Your task to perform on an android device: turn off javascript in the chrome app Image 0: 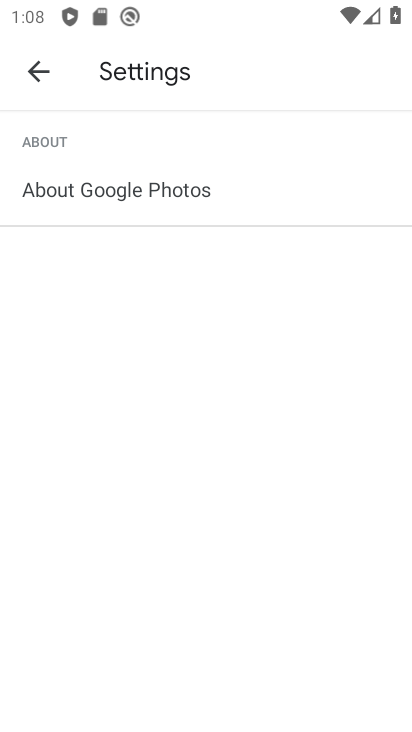
Step 0: press home button
Your task to perform on an android device: turn off javascript in the chrome app Image 1: 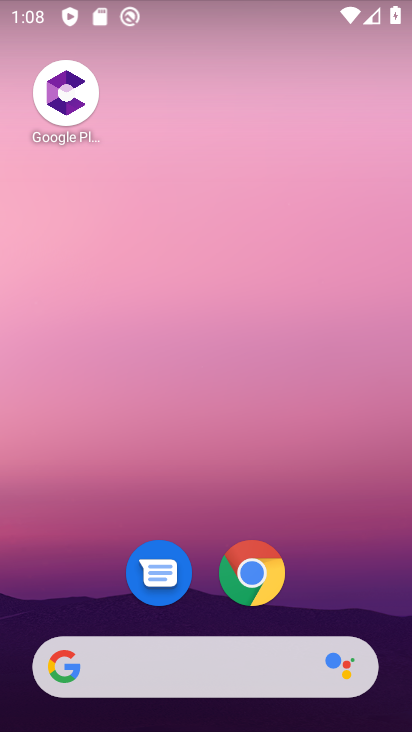
Step 1: click (240, 564)
Your task to perform on an android device: turn off javascript in the chrome app Image 2: 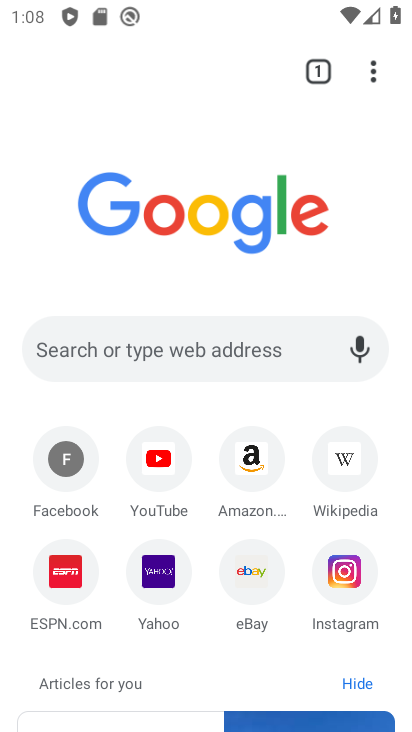
Step 2: click (370, 74)
Your task to perform on an android device: turn off javascript in the chrome app Image 3: 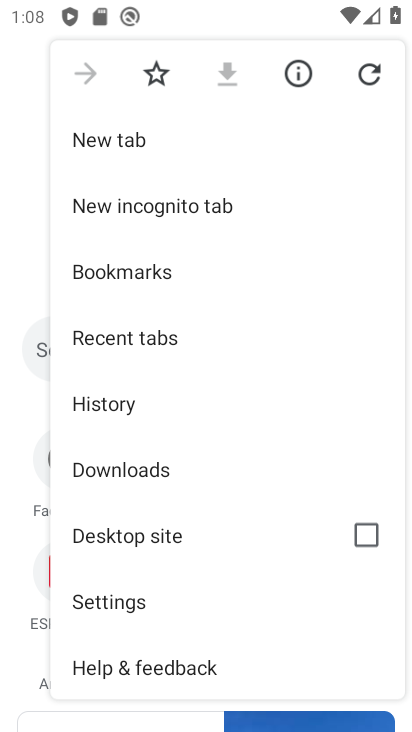
Step 3: click (180, 586)
Your task to perform on an android device: turn off javascript in the chrome app Image 4: 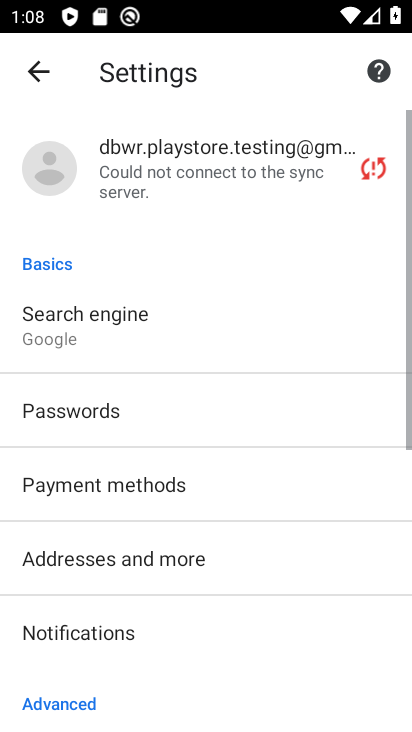
Step 4: drag from (233, 576) to (235, 334)
Your task to perform on an android device: turn off javascript in the chrome app Image 5: 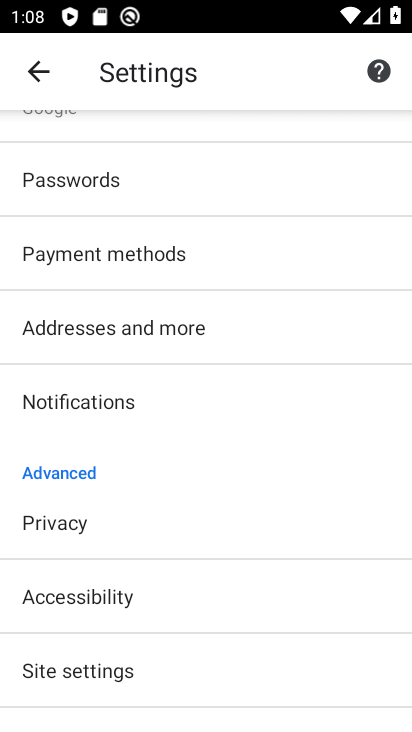
Step 5: click (129, 662)
Your task to perform on an android device: turn off javascript in the chrome app Image 6: 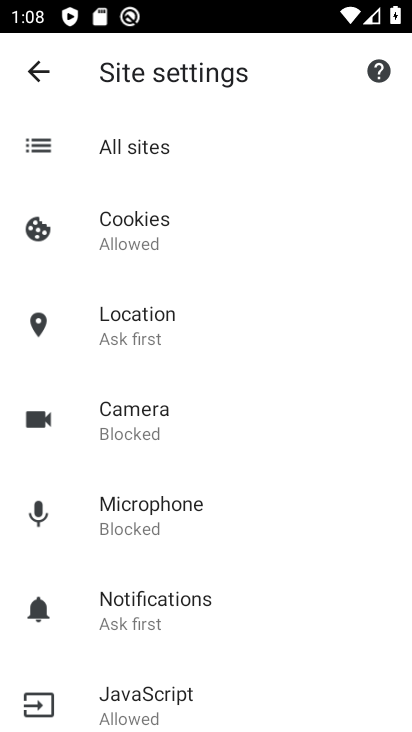
Step 6: click (183, 669)
Your task to perform on an android device: turn off javascript in the chrome app Image 7: 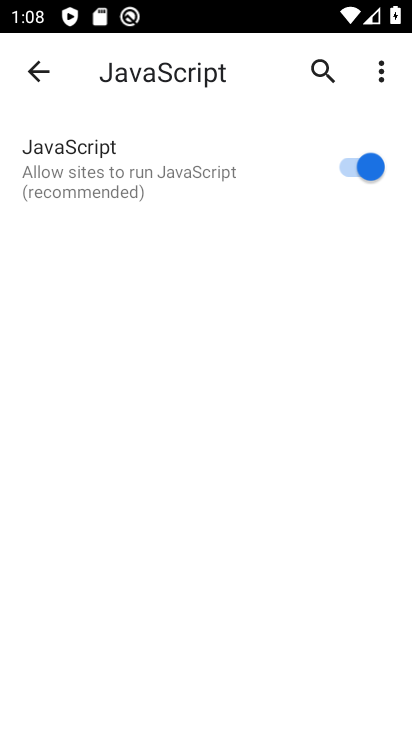
Step 7: click (358, 170)
Your task to perform on an android device: turn off javascript in the chrome app Image 8: 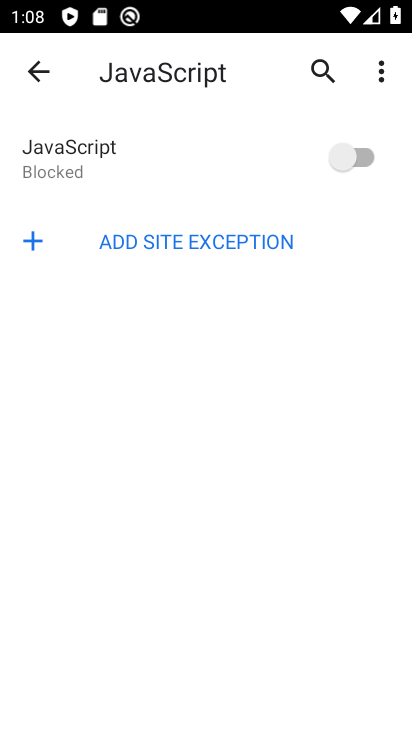
Step 8: task complete